Your task to perform on an android device: add a contact in the contacts app Image 0: 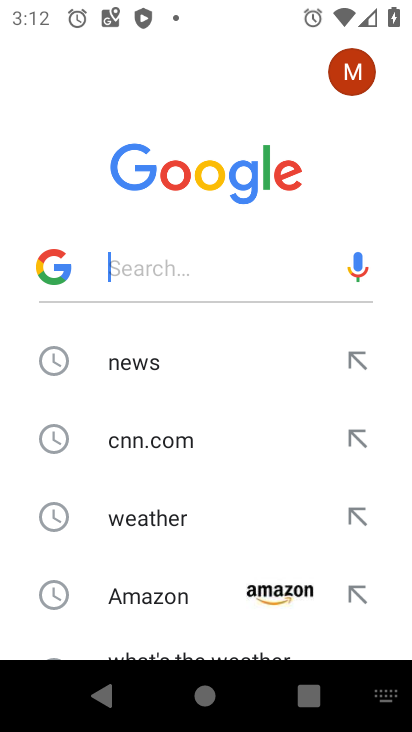
Step 0: press back button
Your task to perform on an android device: add a contact in the contacts app Image 1: 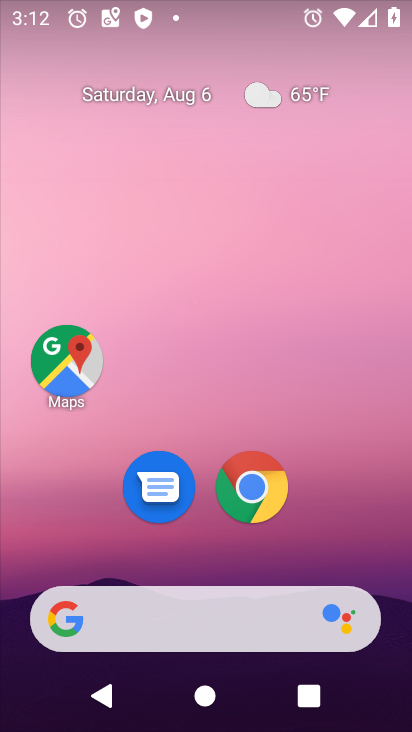
Step 1: drag from (187, 590) to (160, 164)
Your task to perform on an android device: add a contact in the contacts app Image 2: 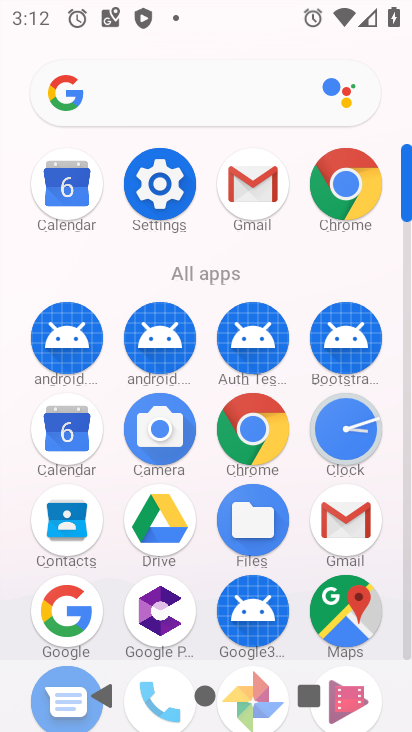
Step 2: click (56, 510)
Your task to perform on an android device: add a contact in the contacts app Image 3: 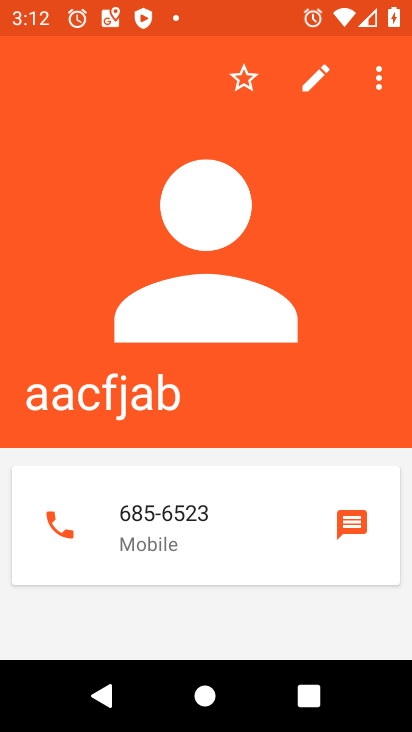
Step 3: press back button
Your task to perform on an android device: add a contact in the contacts app Image 4: 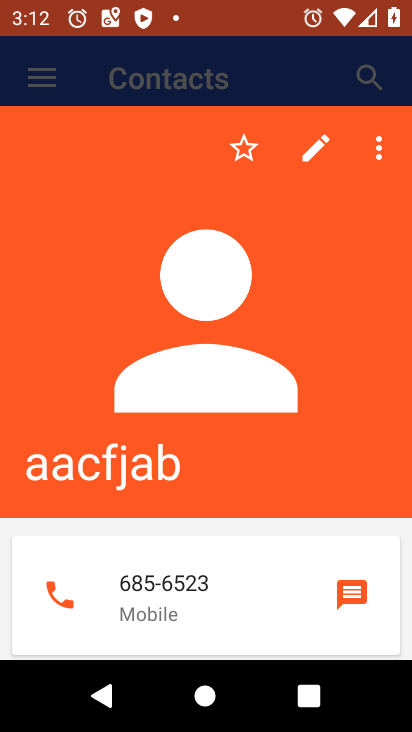
Step 4: press back button
Your task to perform on an android device: add a contact in the contacts app Image 5: 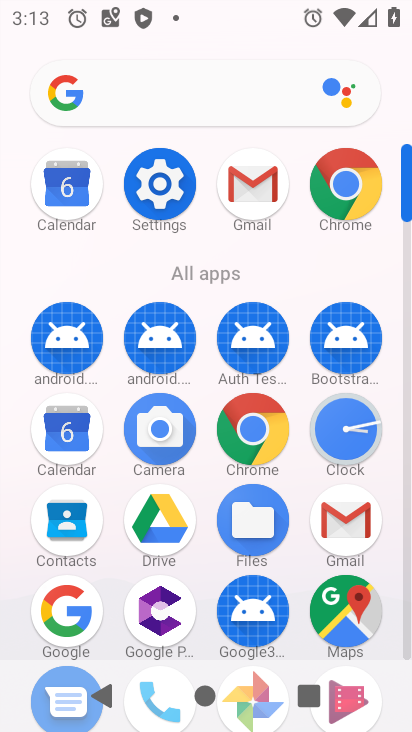
Step 5: click (76, 518)
Your task to perform on an android device: add a contact in the contacts app Image 6: 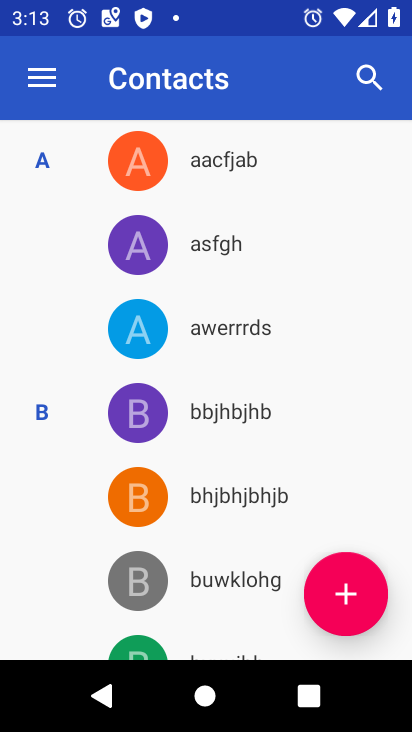
Step 6: click (317, 618)
Your task to perform on an android device: add a contact in the contacts app Image 7: 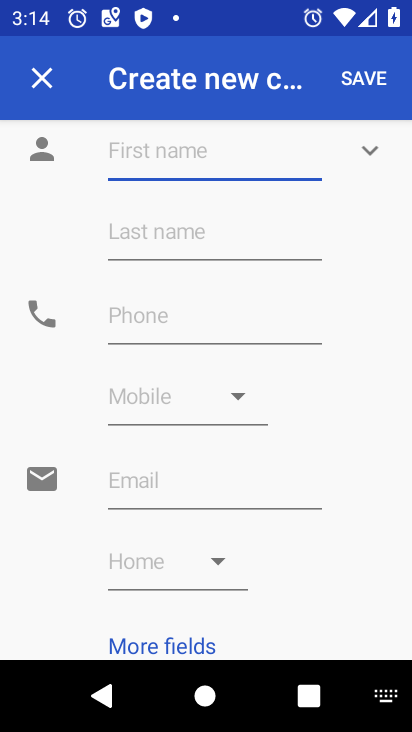
Step 7: type "zcxnv"
Your task to perform on an android device: add a contact in the contacts app Image 8: 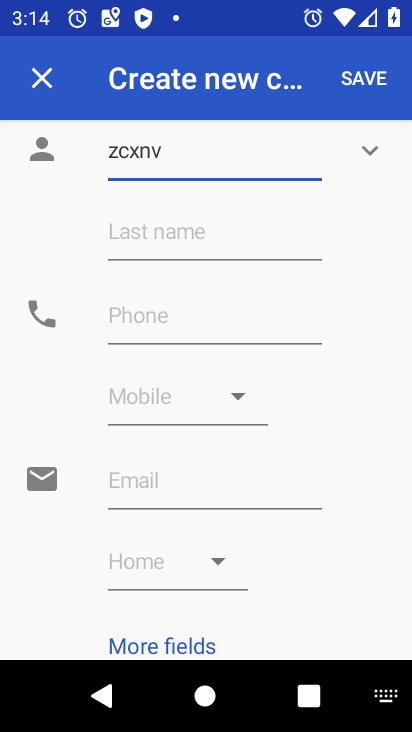
Step 8: click (238, 326)
Your task to perform on an android device: add a contact in the contacts app Image 9: 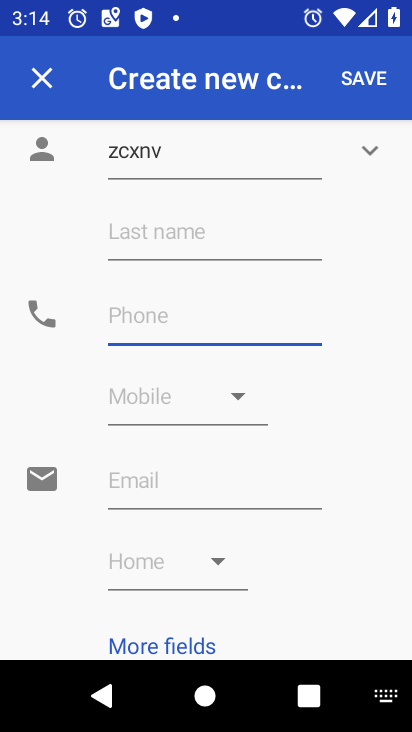
Step 9: type "348573499"
Your task to perform on an android device: add a contact in the contacts app Image 10: 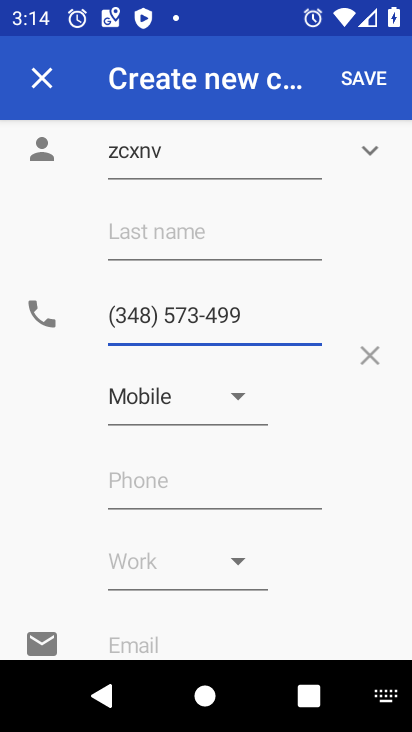
Step 10: click (362, 63)
Your task to perform on an android device: add a contact in the contacts app Image 11: 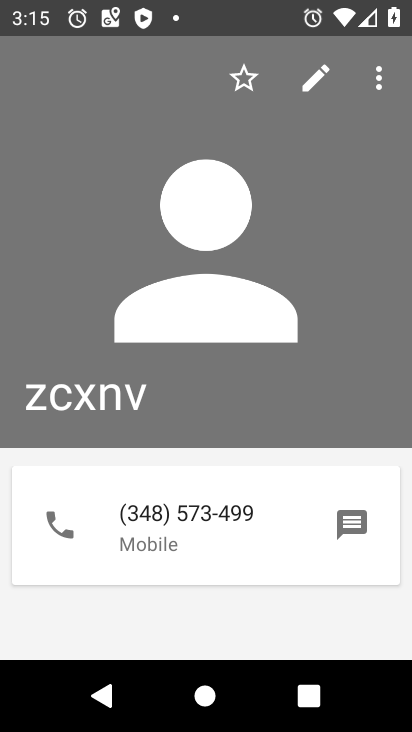
Step 11: task complete